Your task to perform on an android device: manage bookmarks in the chrome app Image 0: 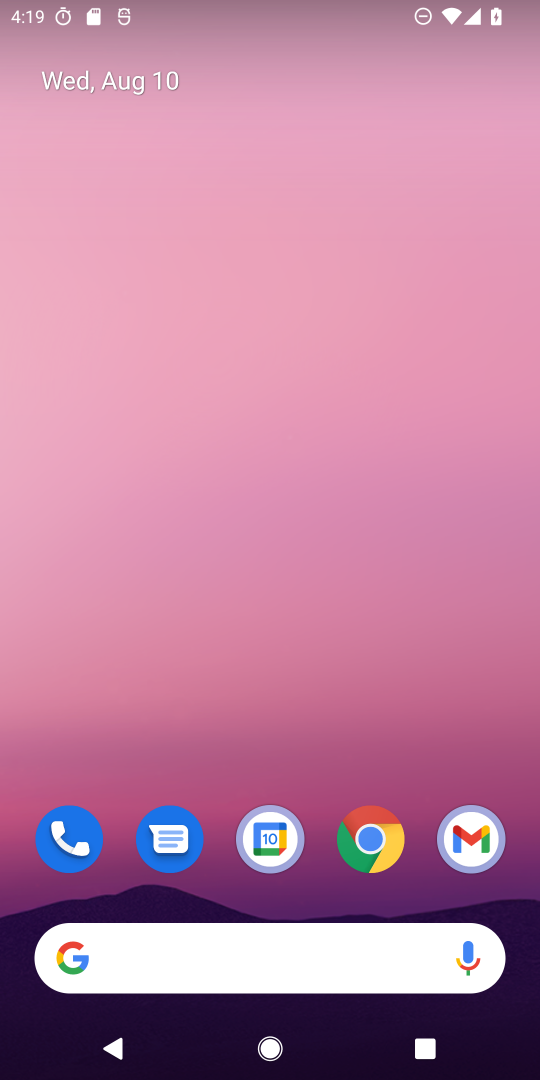
Step 0: click (365, 846)
Your task to perform on an android device: manage bookmarks in the chrome app Image 1: 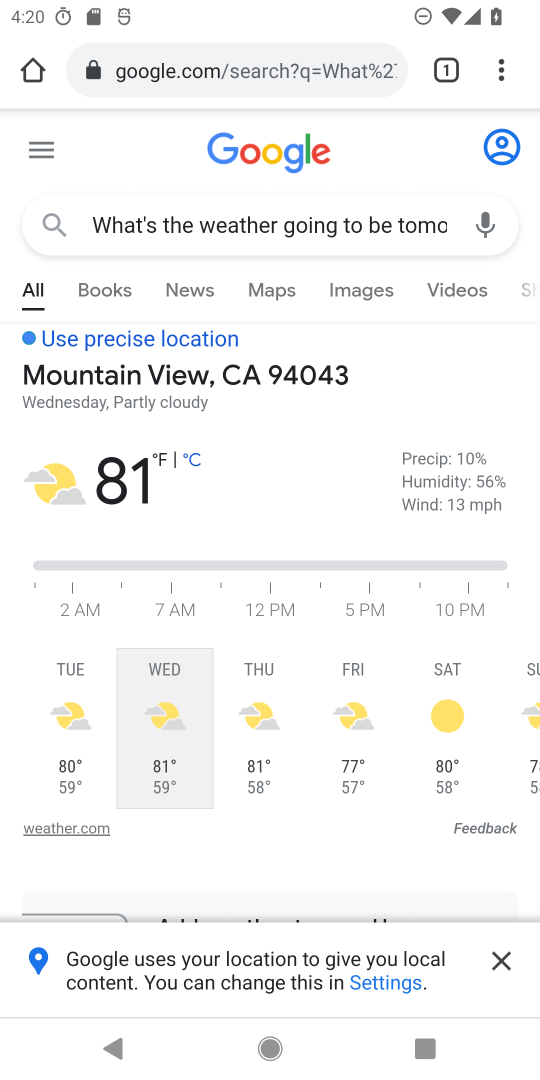
Step 1: click (506, 77)
Your task to perform on an android device: manage bookmarks in the chrome app Image 2: 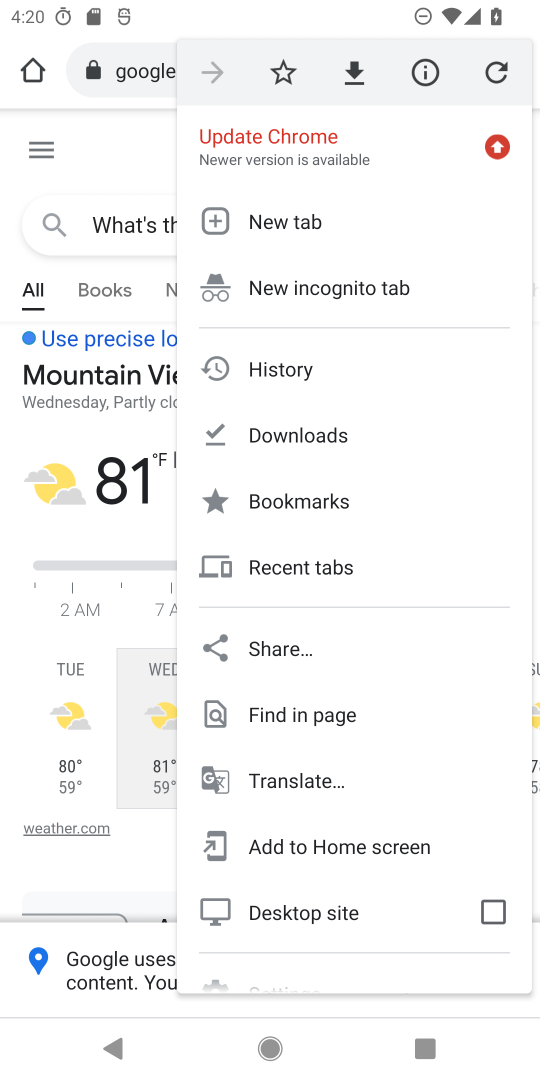
Step 2: click (292, 500)
Your task to perform on an android device: manage bookmarks in the chrome app Image 3: 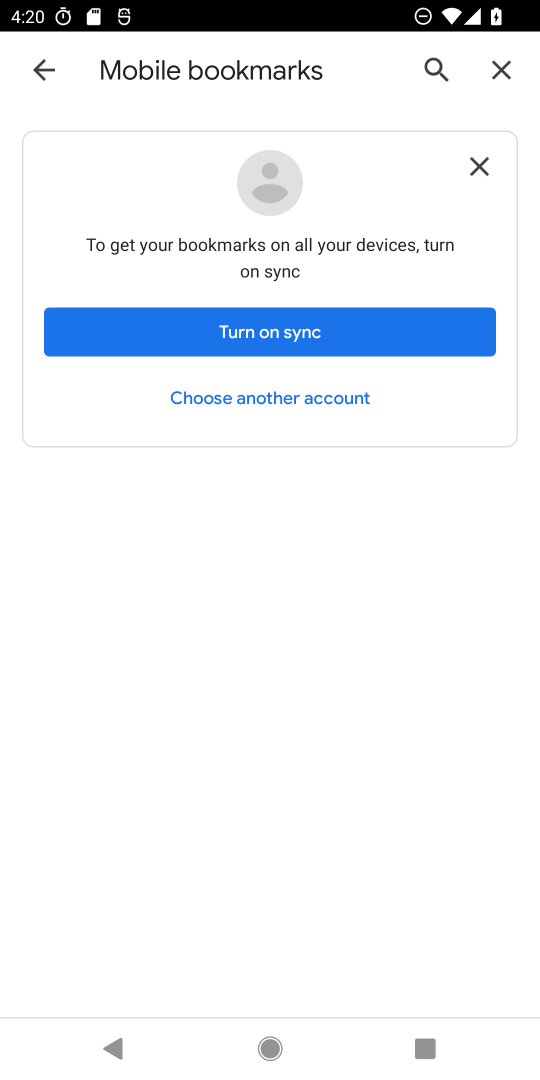
Step 3: click (471, 160)
Your task to perform on an android device: manage bookmarks in the chrome app Image 4: 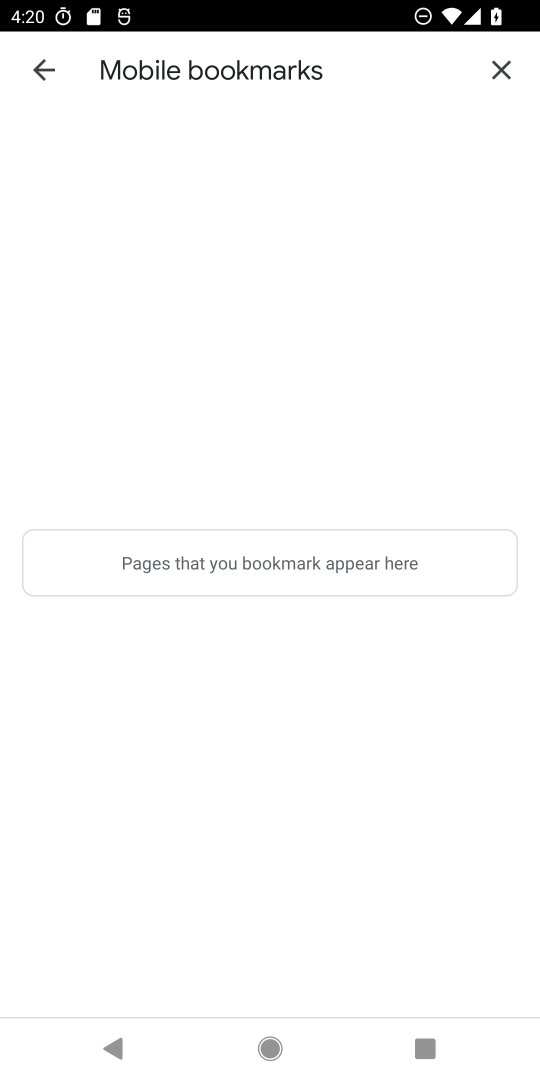
Step 4: click (471, 160)
Your task to perform on an android device: manage bookmarks in the chrome app Image 5: 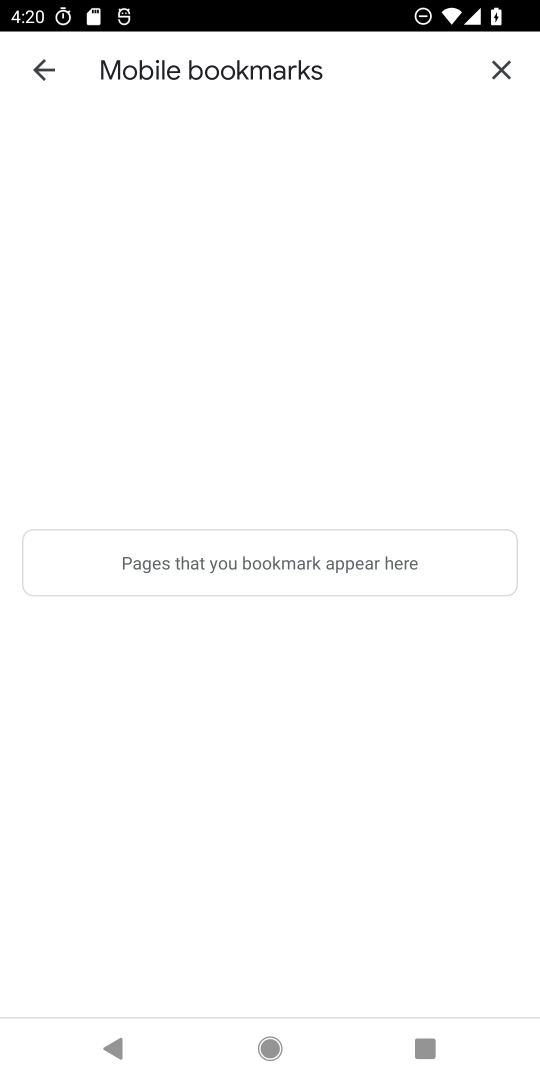
Step 5: task complete